Your task to perform on an android device: change timer sound Image 0: 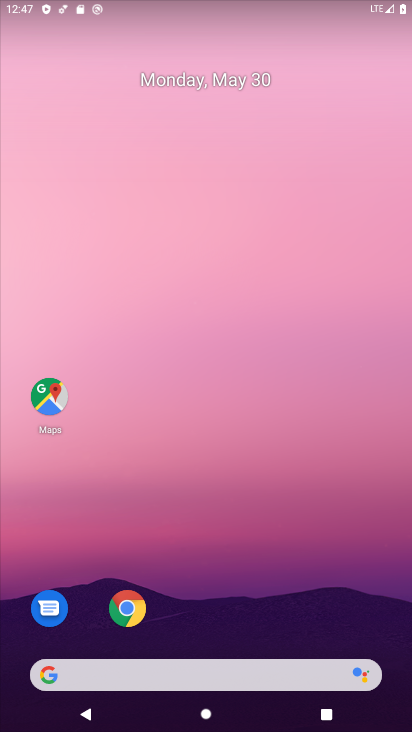
Step 0: drag from (205, 620) to (277, 44)
Your task to perform on an android device: change timer sound Image 1: 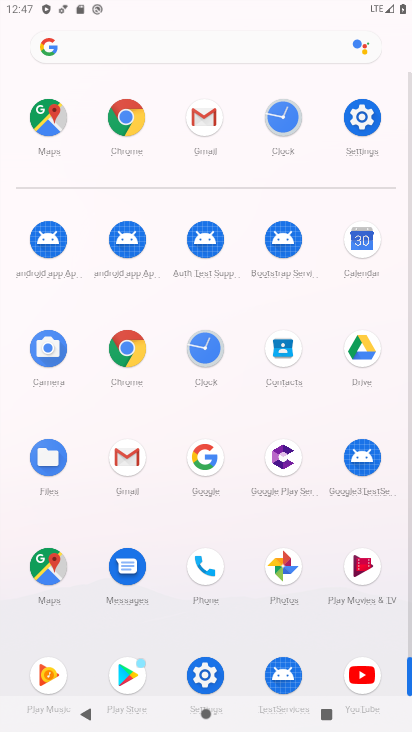
Step 1: click (212, 366)
Your task to perform on an android device: change timer sound Image 2: 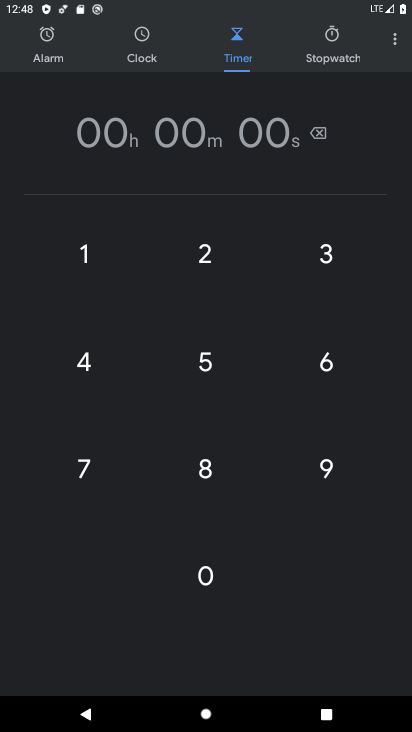
Step 2: click (396, 34)
Your task to perform on an android device: change timer sound Image 3: 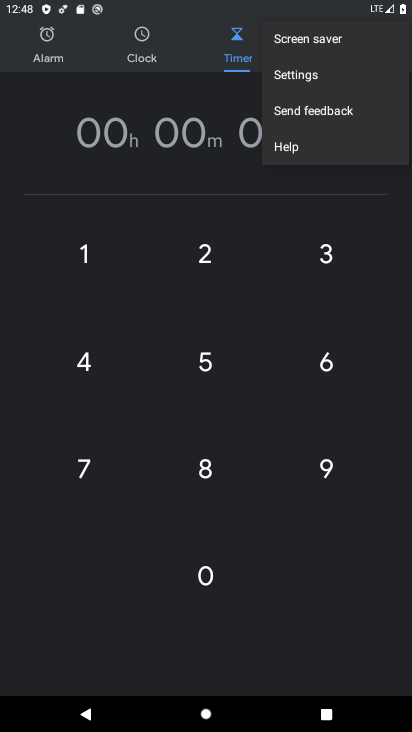
Step 3: click (307, 84)
Your task to perform on an android device: change timer sound Image 4: 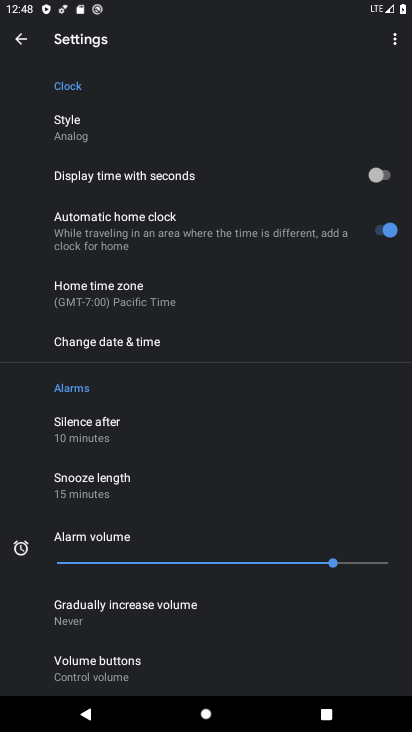
Step 4: drag from (91, 584) to (121, 398)
Your task to perform on an android device: change timer sound Image 5: 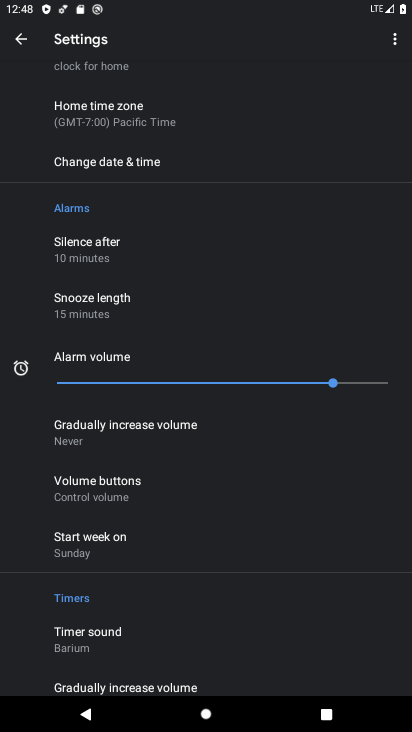
Step 5: drag from (139, 519) to (149, 416)
Your task to perform on an android device: change timer sound Image 6: 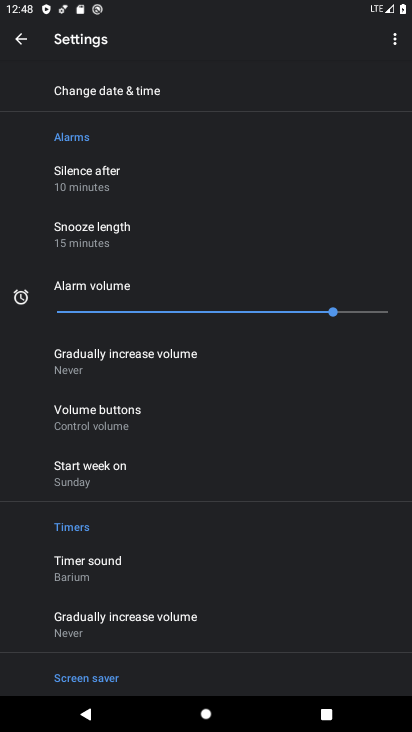
Step 6: click (142, 571)
Your task to perform on an android device: change timer sound Image 7: 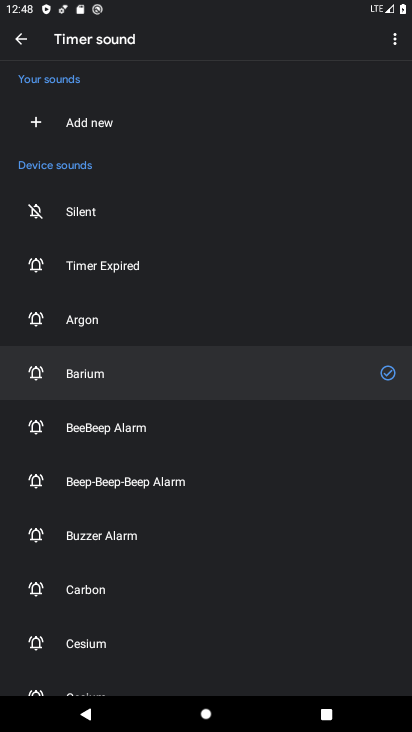
Step 7: click (154, 270)
Your task to perform on an android device: change timer sound Image 8: 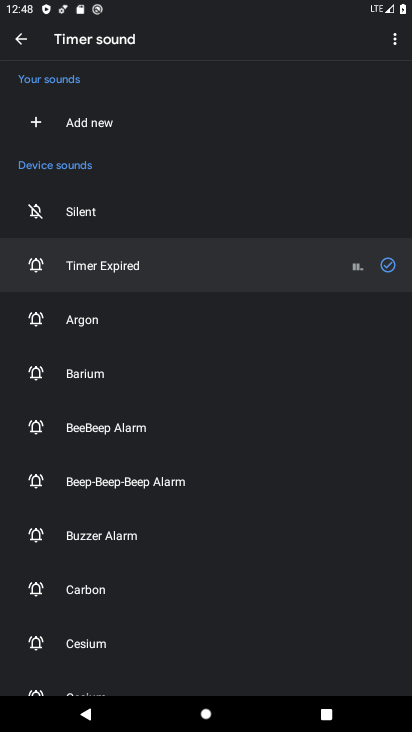
Step 8: task complete